Your task to perform on an android device: Open calendar and show me the second week of next month Image 0: 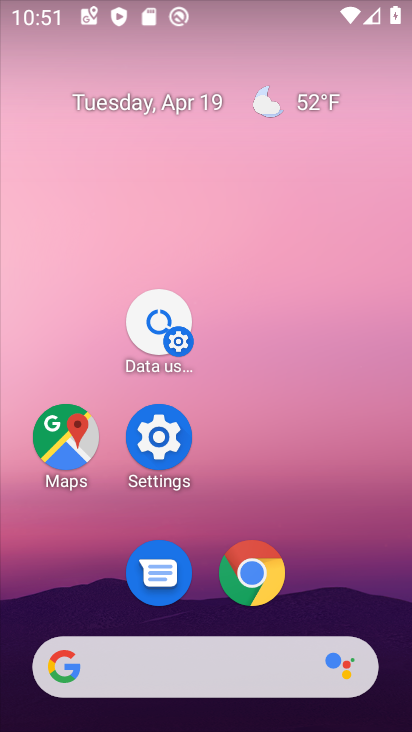
Step 0: drag from (364, 622) to (376, 6)
Your task to perform on an android device: Open calendar and show me the second week of next month Image 1: 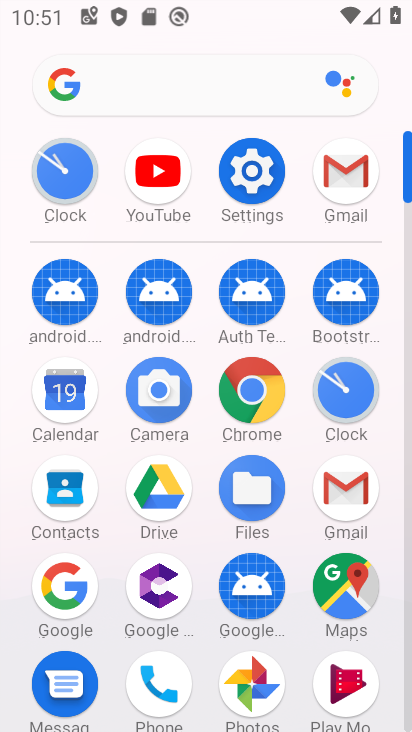
Step 1: click (48, 406)
Your task to perform on an android device: Open calendar and show me the second week of next month Image 2: 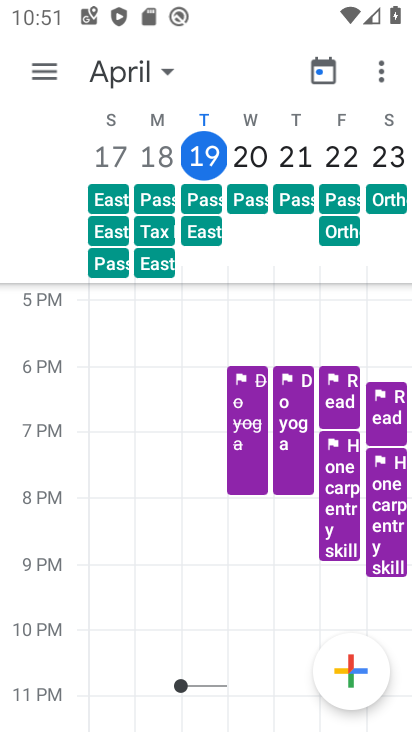
Step 2: click (168, 72)
Your task to perform on an android device: Open calendar and show me the second week of next month Image 3: 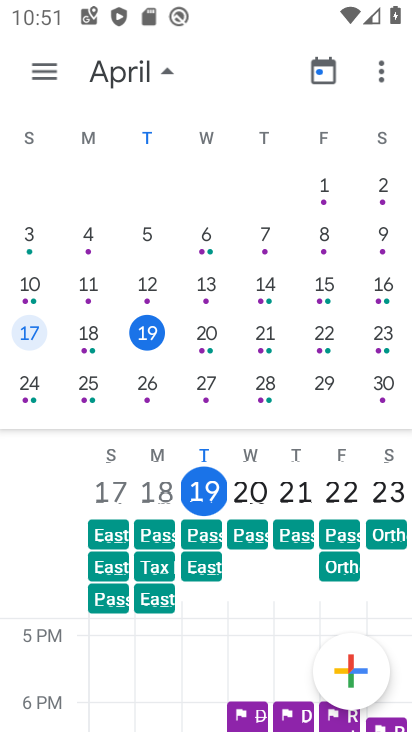
Step 3: task complete